Your task to perform on an android device: Show me popular videos on Youtube Image 0: 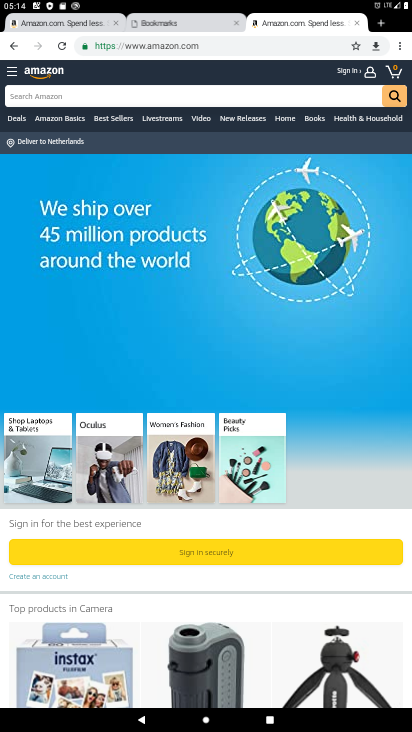
Step 0: press home button
Your task to perform on an android device: Show me popular videos on Youtube Image 1: 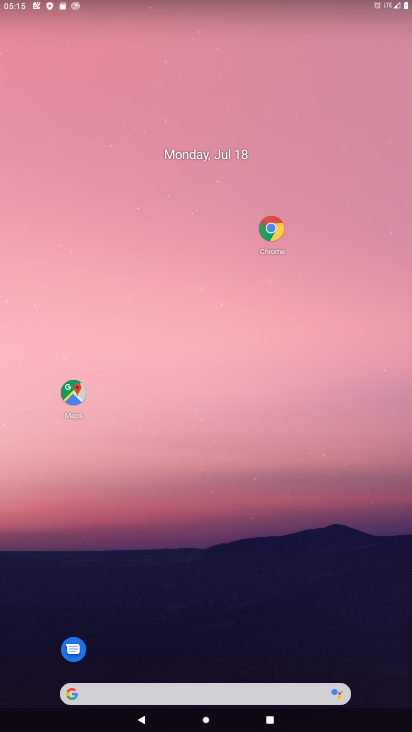
Step 1: drag from (146, 610) to (111, 83)
Your task to perform on an android device: Show me popular videos on Youtube Image 2: 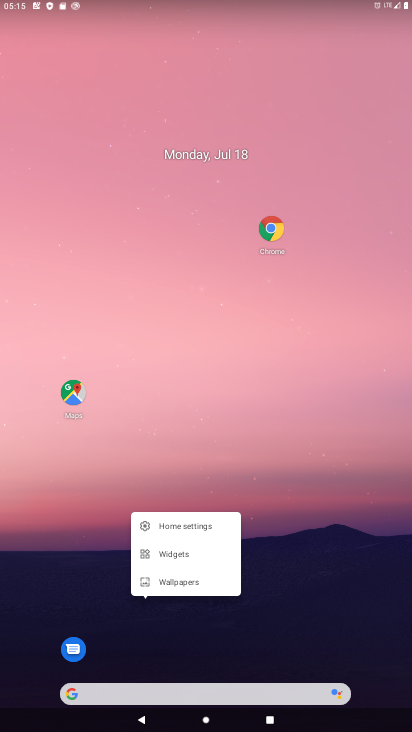
Step 2: drag from (279, 664) to (198, 177)
Your task to perform on an android device: Show me popular videos on Youtube Image 3: 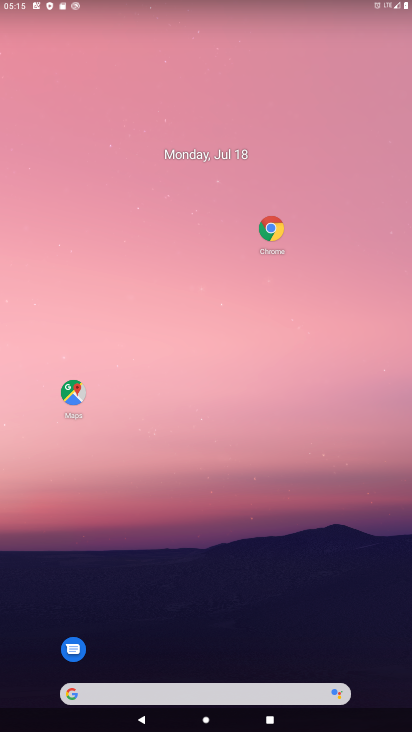
Step 3: drag from (167, 602) to (133, 27)
Your task to perform on an android device: Show me popular videos on Youtube Image 4: 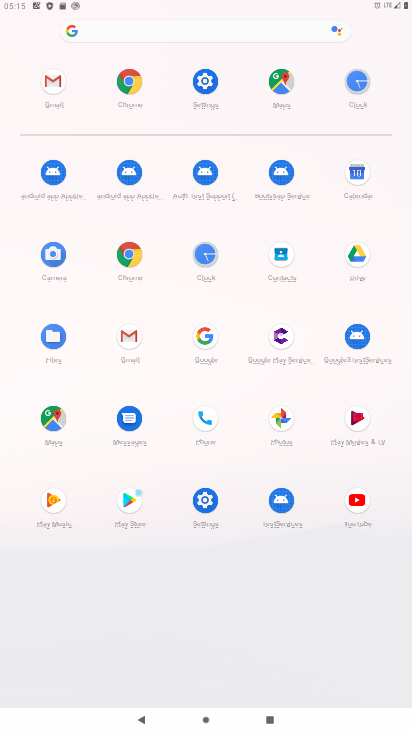
Step 4: click (351, 490)
Your task to perform on an android device: Show me popular videos on Youtube Image 5: 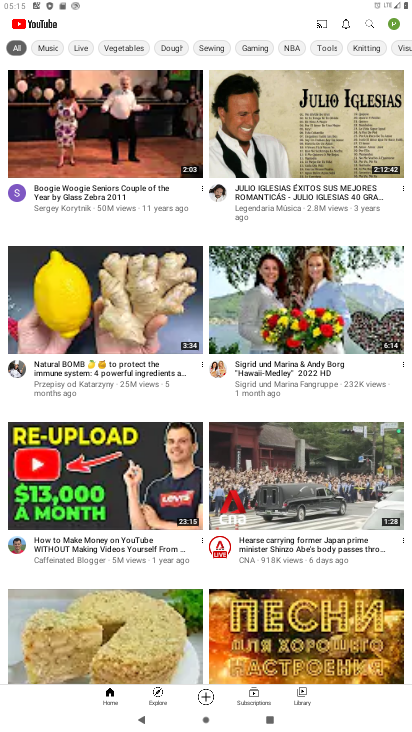
Step 5: drag from (97, 88) to (130, 705)
Your task to perform on an android device: Show me popular videos on Youtube Image 6: 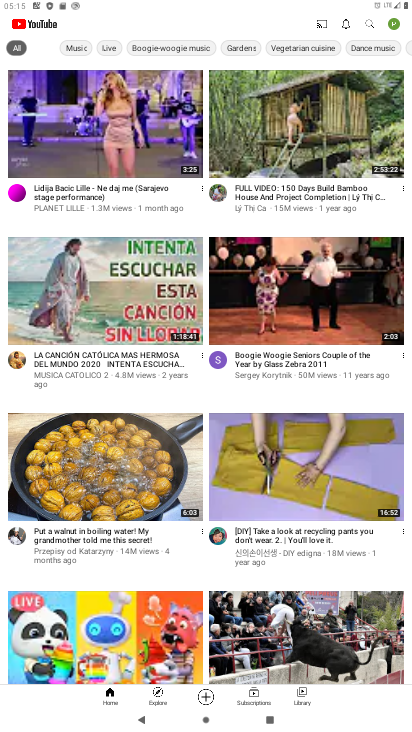
Step 6: click (159, 699)
Your task to perform on an android device: Show me popular videos on Youtube Image 7: 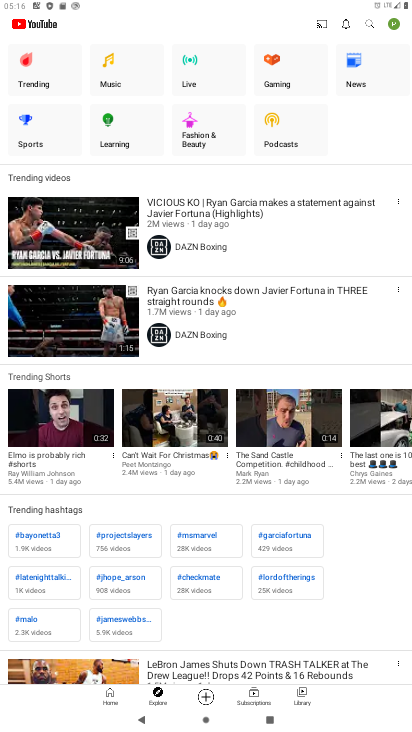
Step 7: click (44, 83)
Your task to perform on an android device: Show me popular videos on Youtube Image 8: 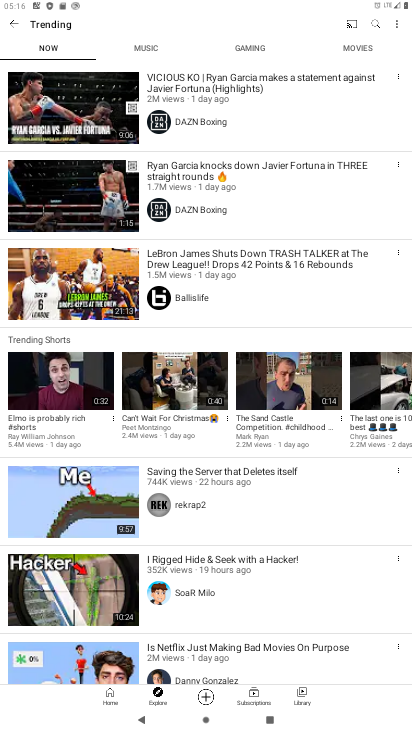
Step 8: task complete